Your task to perform on an android device: Set the phone to "Do not disturb". Image 0: 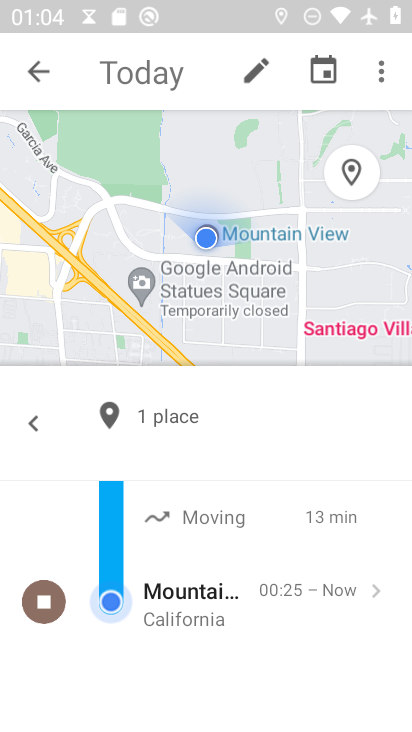
Step 0: press home button
Your task to perform on an android device: Set the phone to "Do not disturb". Image 1: 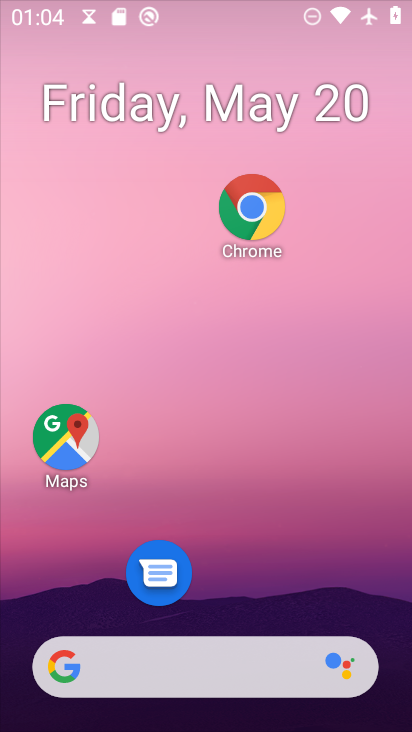
Step 1: drag from (293, 579) to (357, 1)
Your task to perform on an android device: Set the phone to "Do not disturb". Image 2: 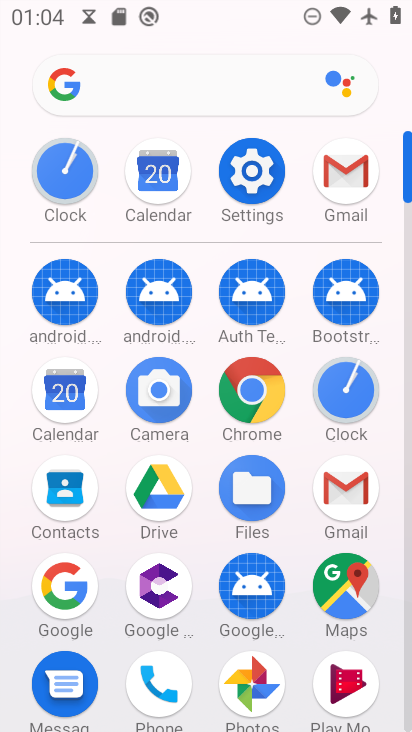
Step 2: click (251, 164)
Your task to perform on an android device: Set the phone to "Do not disturb". Image 3: 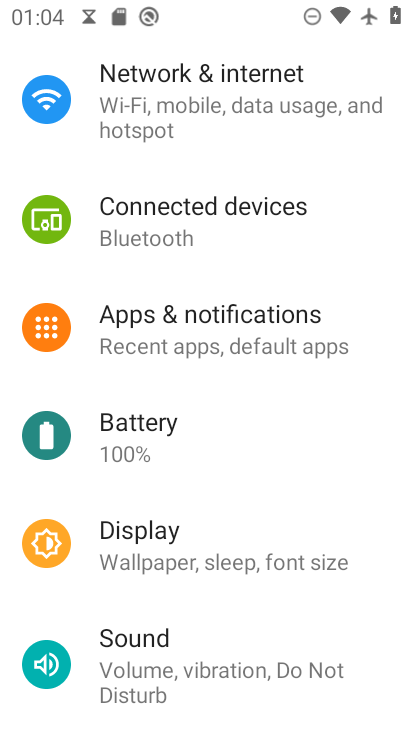
Step 3: drag from (191, 575) to (201, 401)
Your task to perform on an android device: Set the phone to "Do not disturb". Image 4: 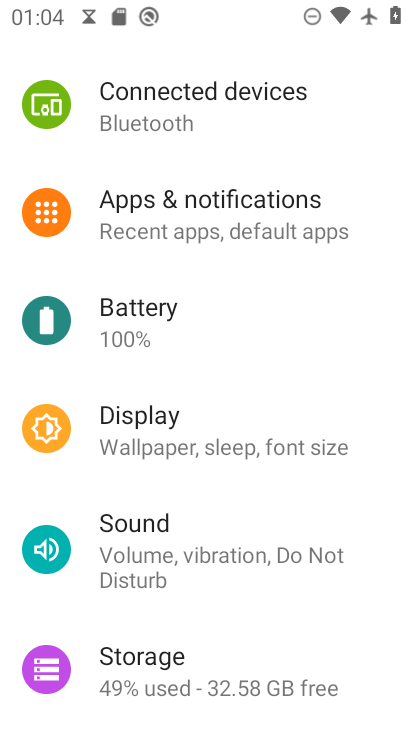
Step 4: click (213, 556)
Your task to perform on an android device: Set the phone to "Do not disturb". Image 5: 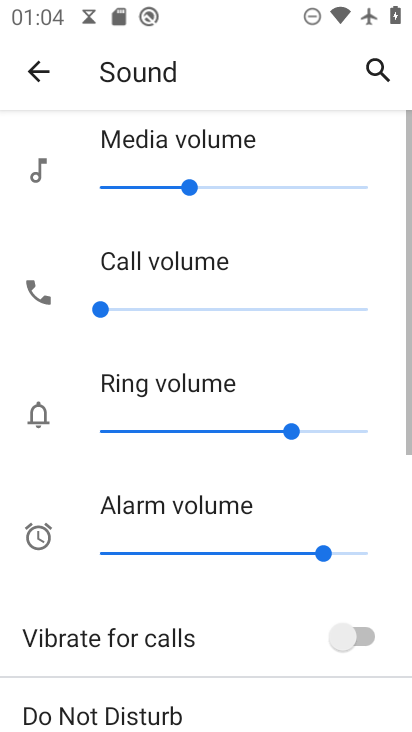
Step 5: drag from (237, 588) to (337, 168)
Your task to perform on an android device: Set the phone to "Do not disturb". Image 6: 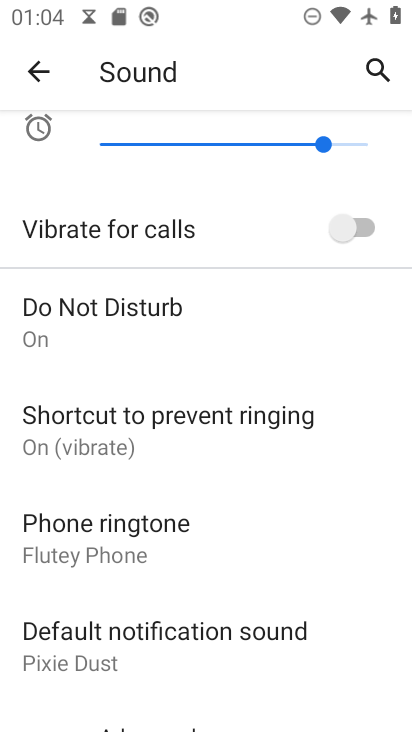
Step 6: click (50, 322)
Your task to perform on an android device: Set the phone to "Do not disturb". Image 7: 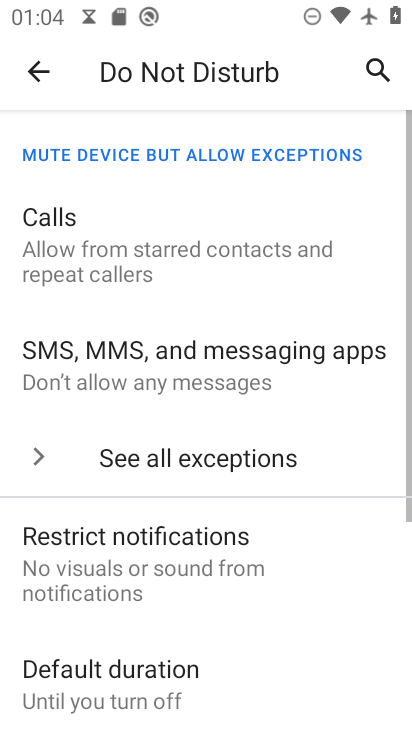
Step 7: task complete